Your task to perform on an android device: turn off location Image 0: 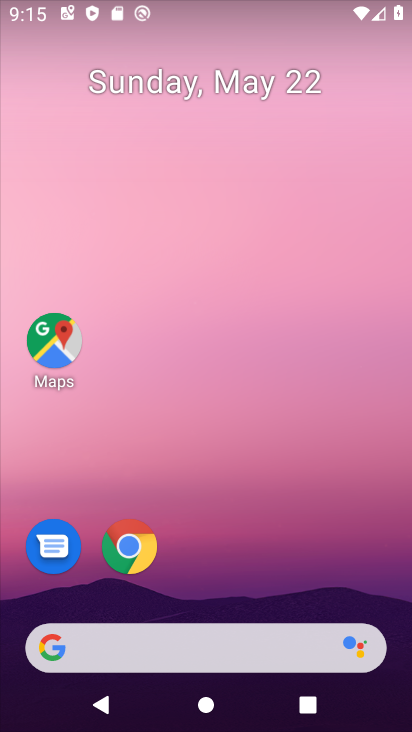
Step 0: drag from (212, 485) to (283, 108)
Your task to perform on an android device: turn off location Image 1: 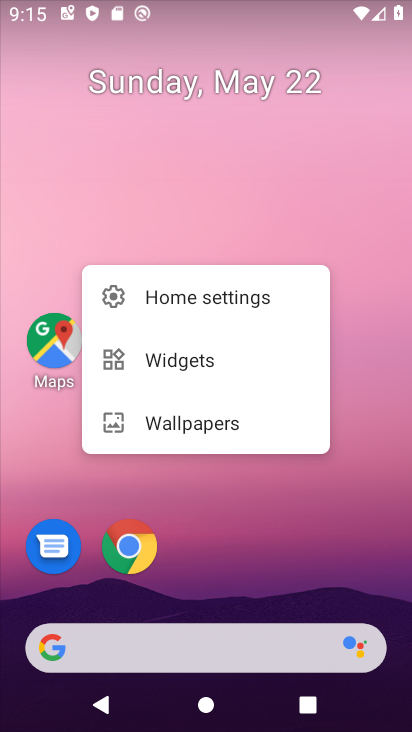
Step 1: click (261, 552)
Your task to perform on an android device: turn off location Image 2: 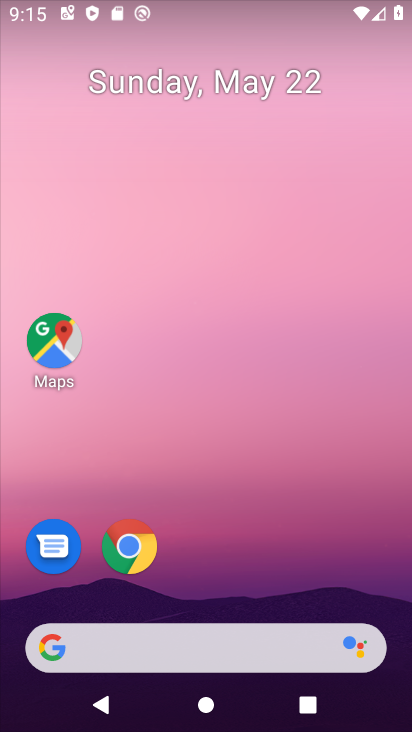
Step 2: drag from (239, 391) to (279, 62)
Your task to perform on an android device: turn off location Image 3: 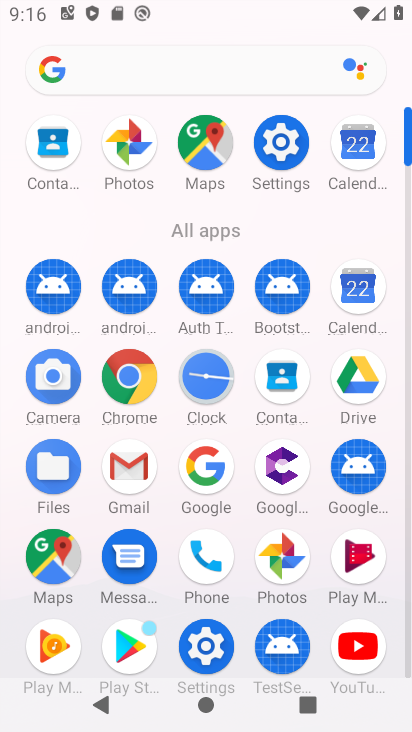
Step 3: click (303, 137)
Your task to perform on an android device: turn off location Image 4: 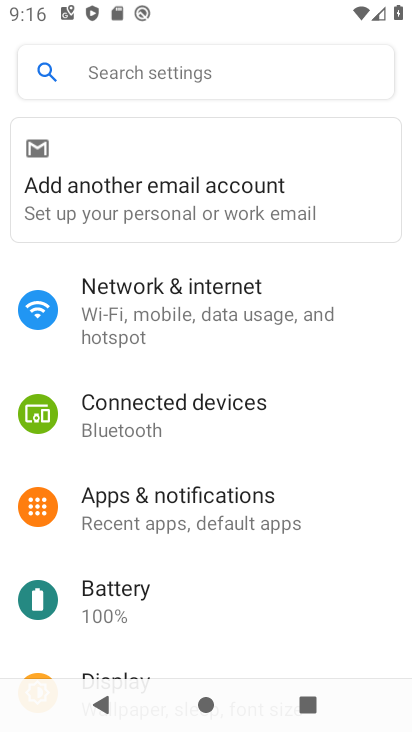
Step 4: drag from (102, 479) to (94, 194)
Your task to perform on an android device: turn off location Image 5: 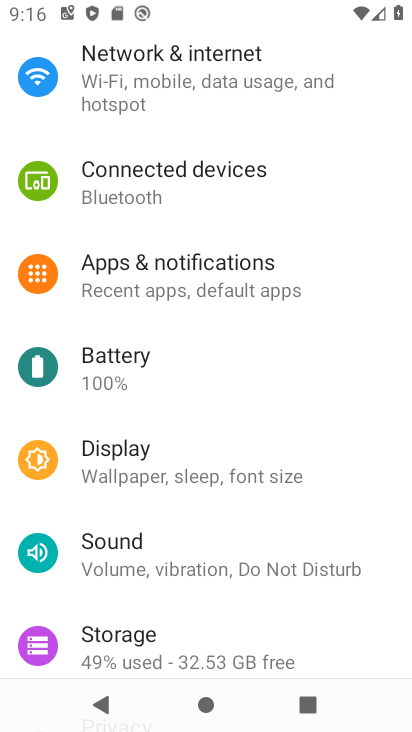
Step 5: drag from (233, 285) to (254, 69)
Your task to perform on an android device: turn off location Image 6: 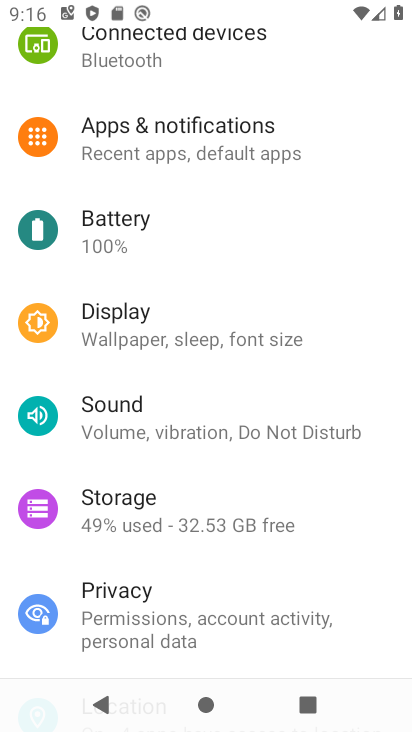
Step 6: drag from (236, 489) to (345, 46)
Your task to perform on an android device: turn off location Image 7: 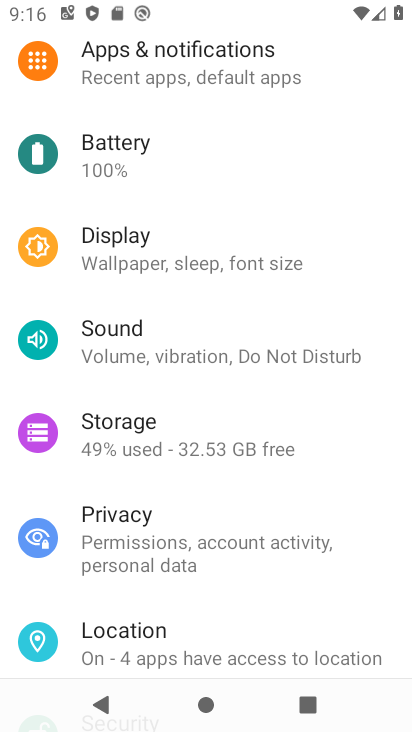
Step 7: click (131, 640)
Your task to perform on an android device: turn off location Image 8: 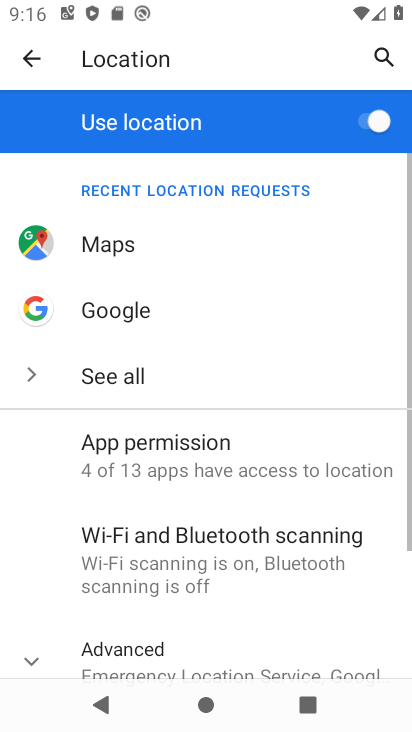
Step 8: click (370, 116)
Your task to perform on an android device: turn off location Image 9: 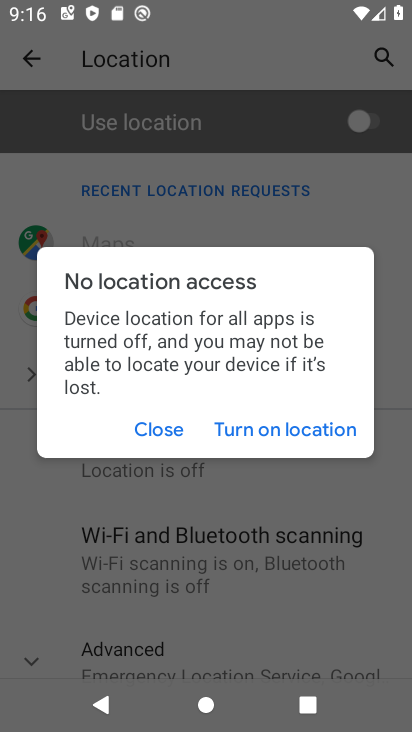
Step 9: click (155, 431)
Your task to perform on an android device: turn off location Image 10: 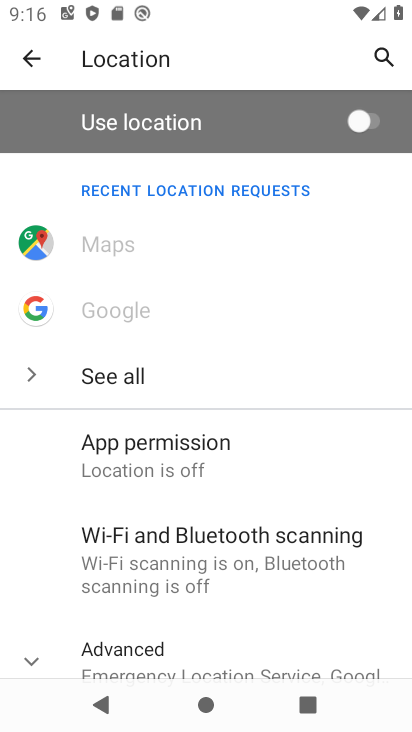
Step 10: task complete